Your task to perform on an android device: Search for seafood restaurants on Google Maps Image 0: 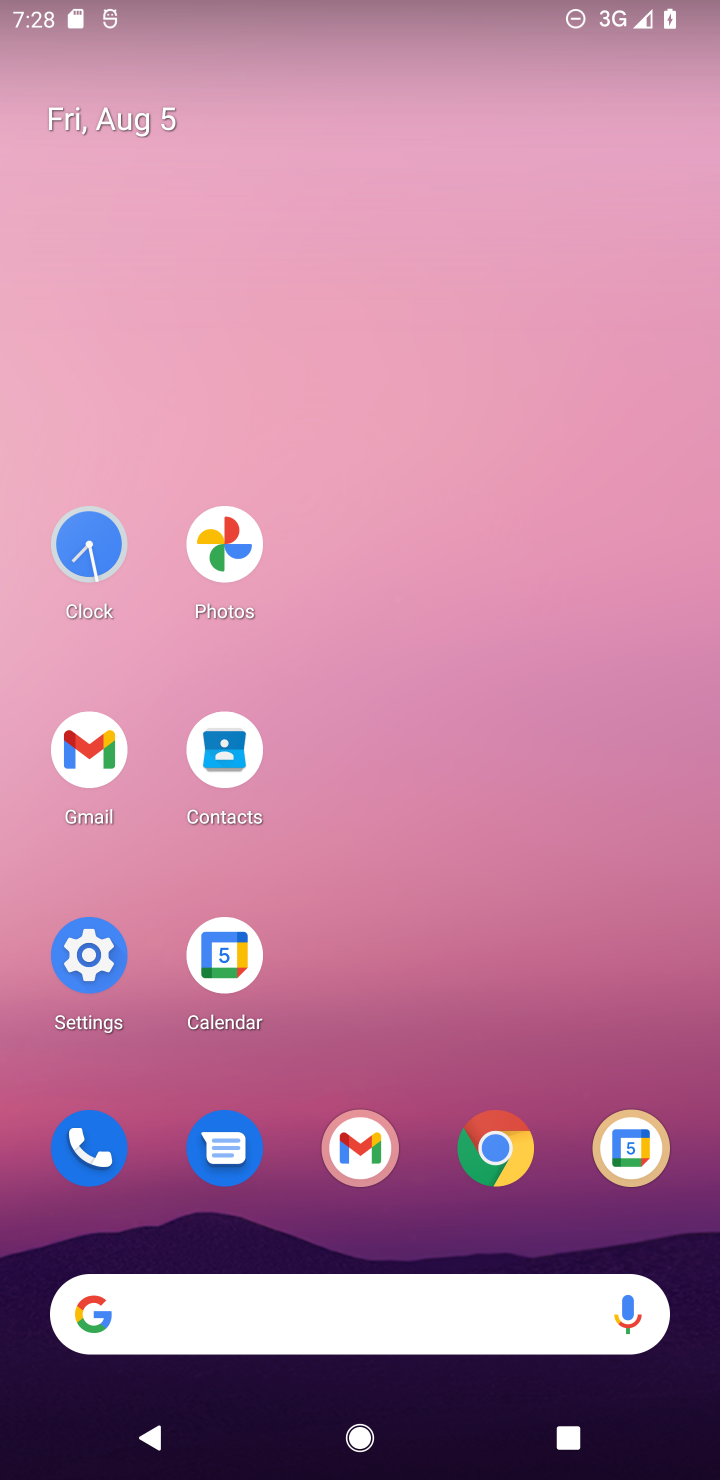
Step 0: drag from (449, 1196) to (375, 245)
Your task to perform on an android device: Search for seafood restaurants on Google Maps Image 1: 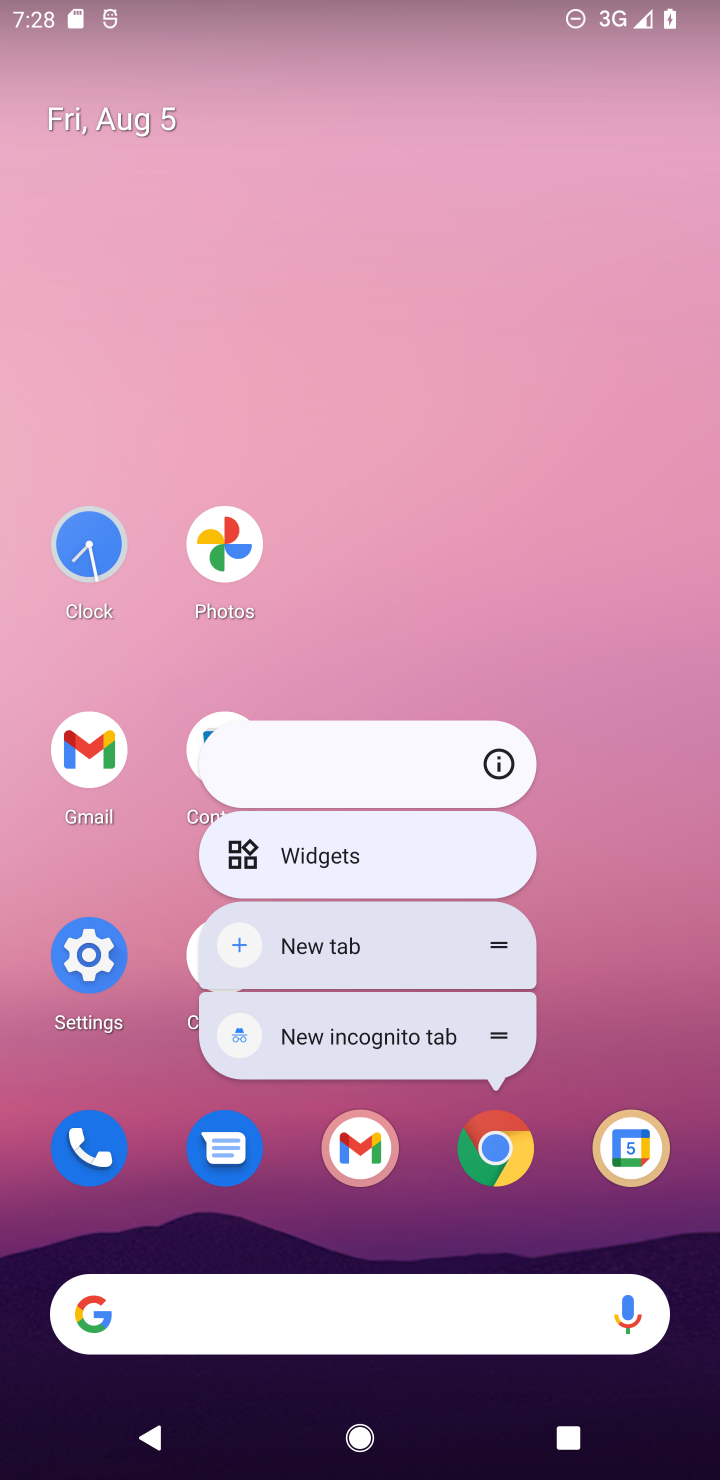
Step 1: drag from (415, 1241) to (379, 469)
Your task to perform on an android device: Search for seafood restaurants on Google Maps Image 2: 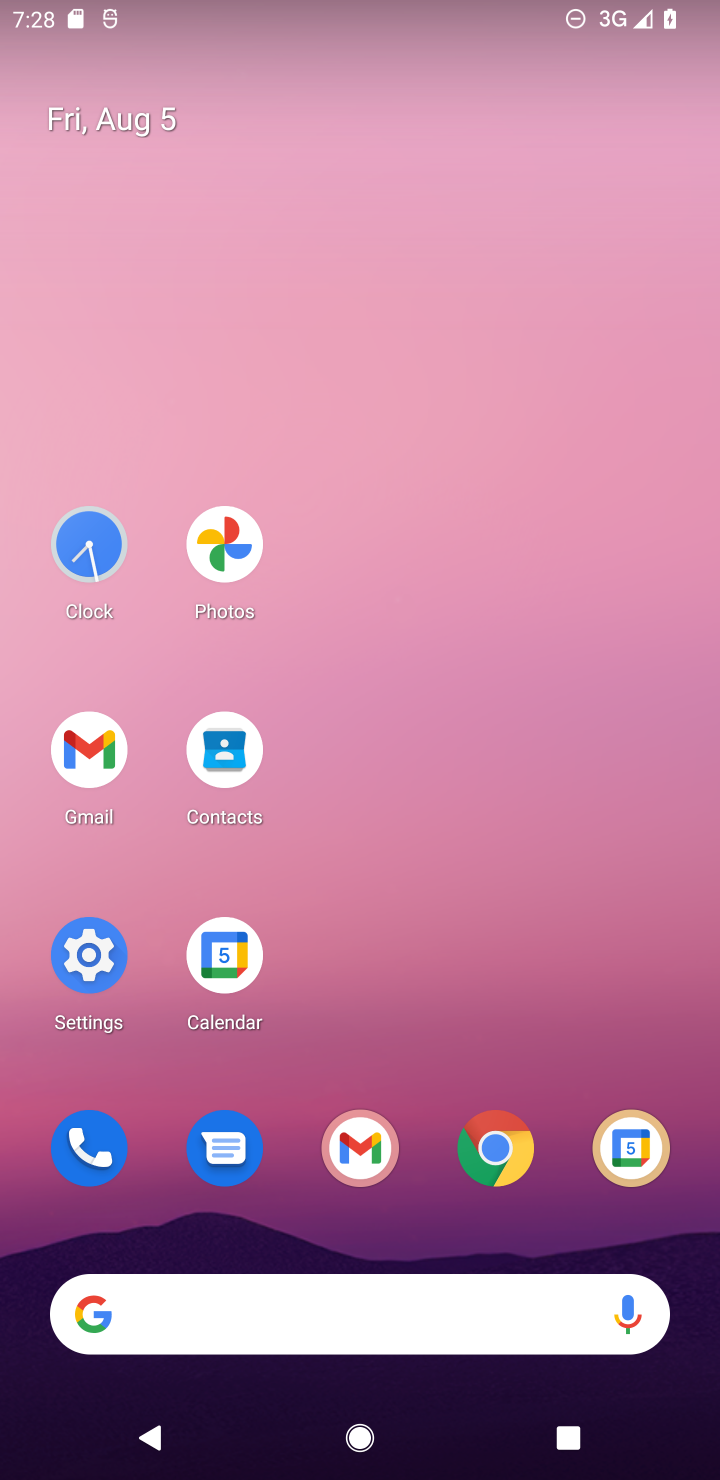
Step 2: drag from (412, 1249) to (499, 340)
Your task to perform on an android device: Search for seafood restaurants on Google Maps Image 3: 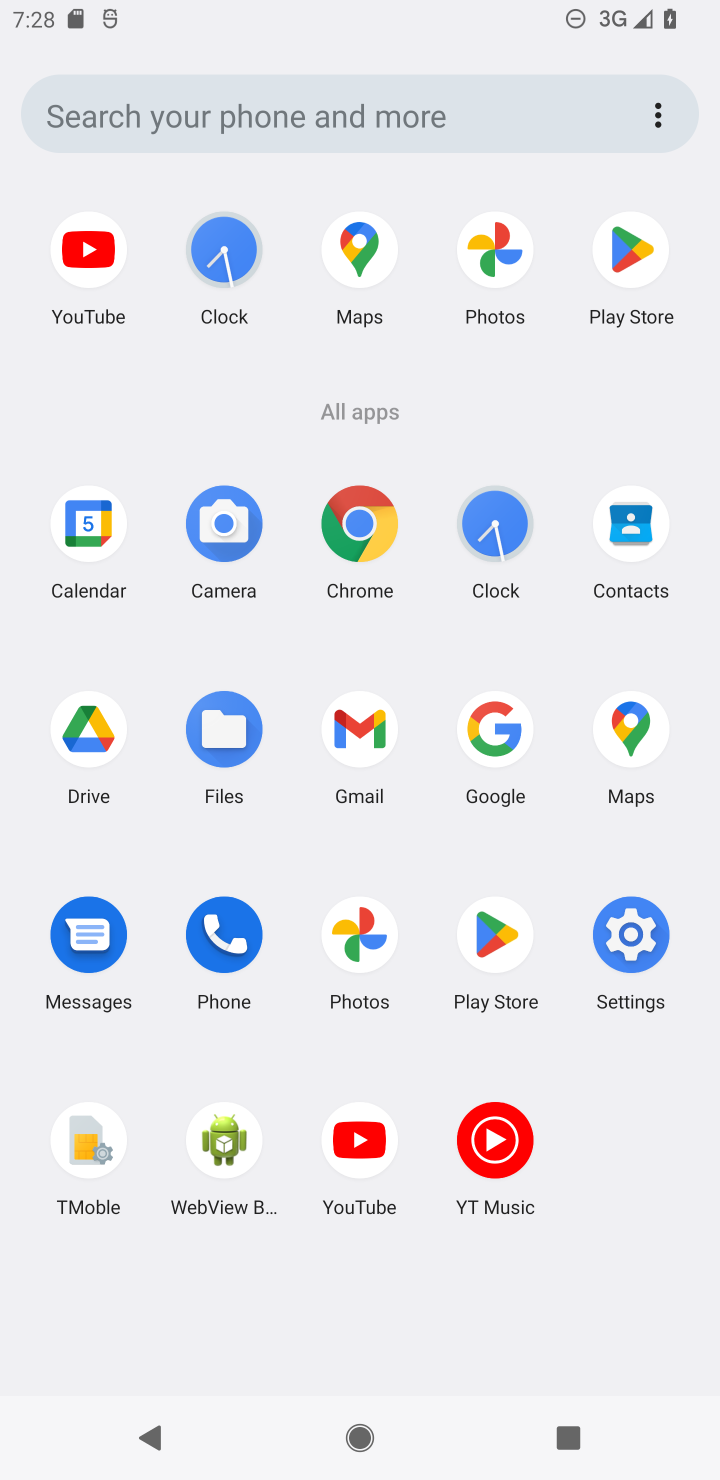
Step 3: click (629, 747)
Your task to perform on an android device: Search for seafood restaurants on Google Maps Image 4: 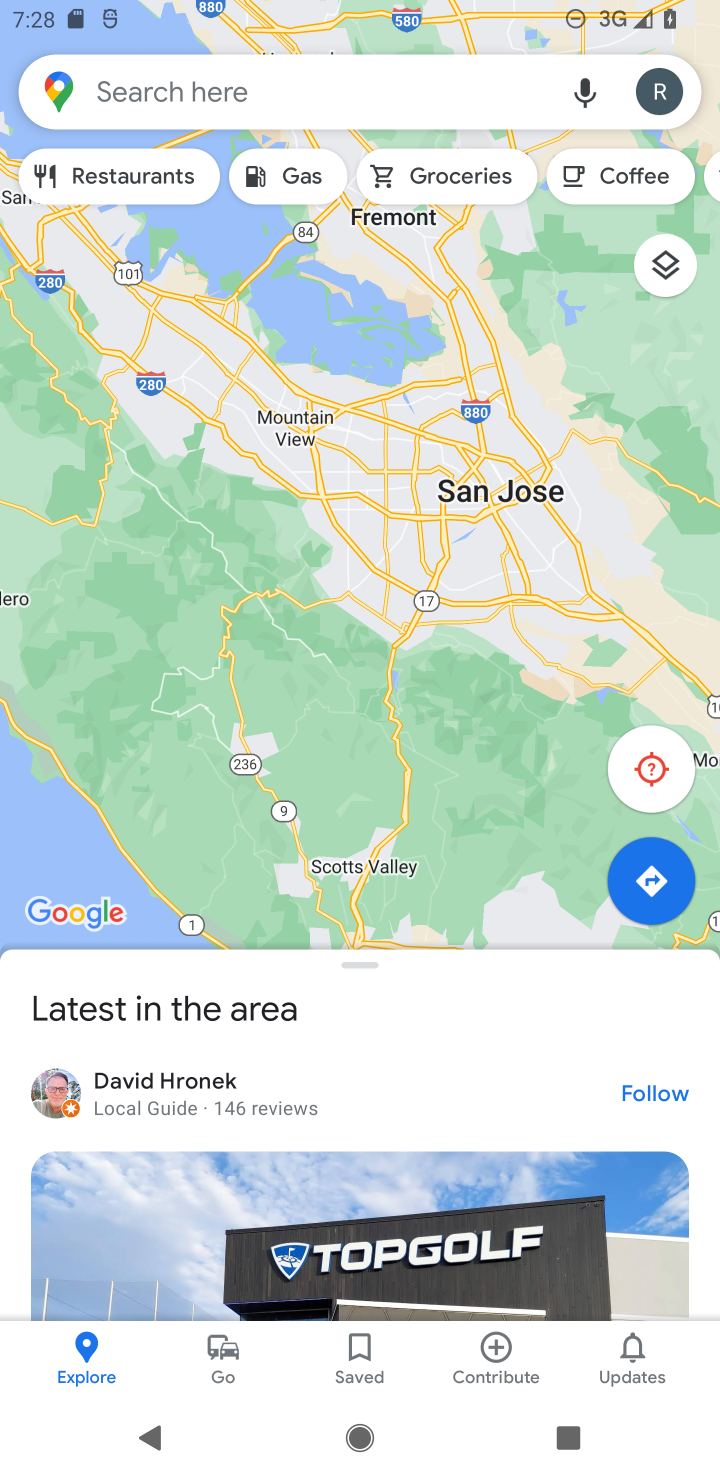
Step 4: click (213, 118)
Your task to perform on an android device: Search for seafood restaurants on Google Maps Image 5: 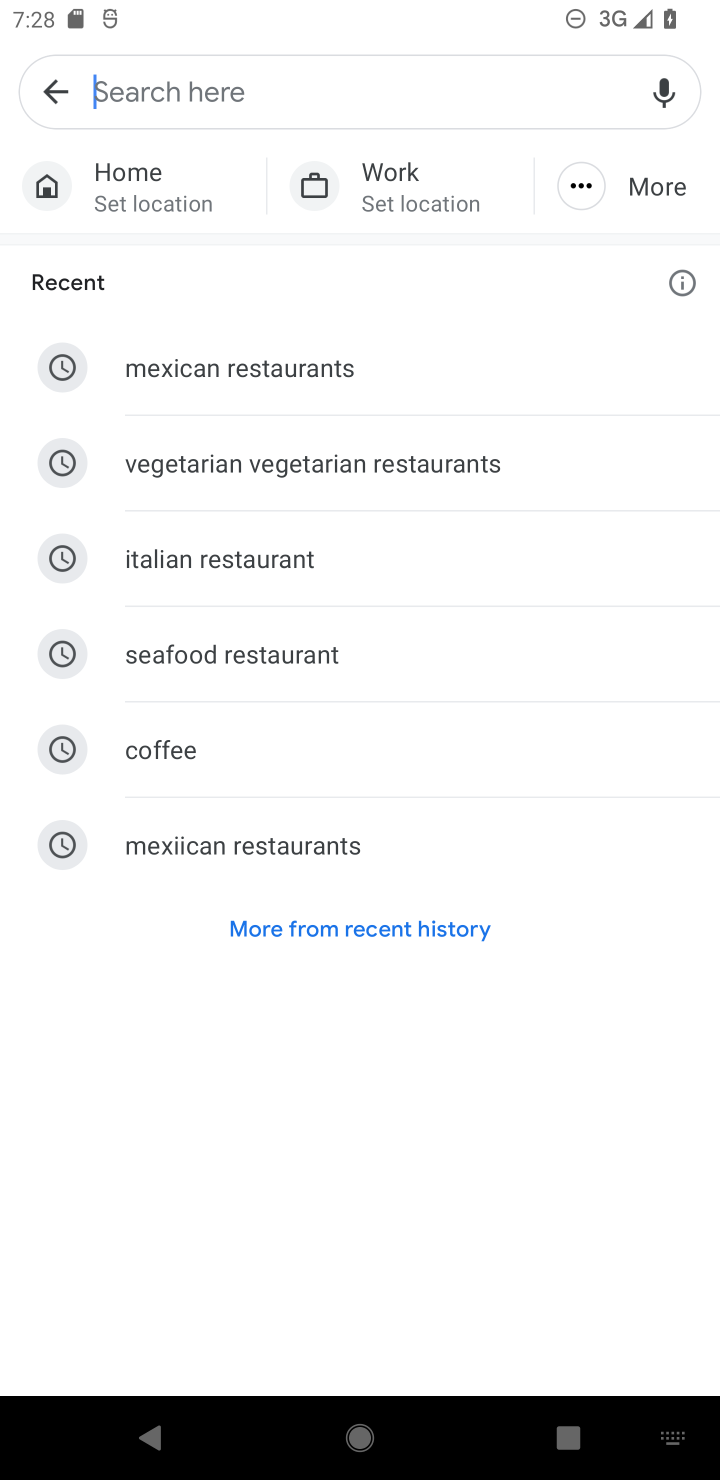
Step 5: click (207, 658)
Your task to perform on an android device: Search for seafood restaurants on Google Maps Image 6: 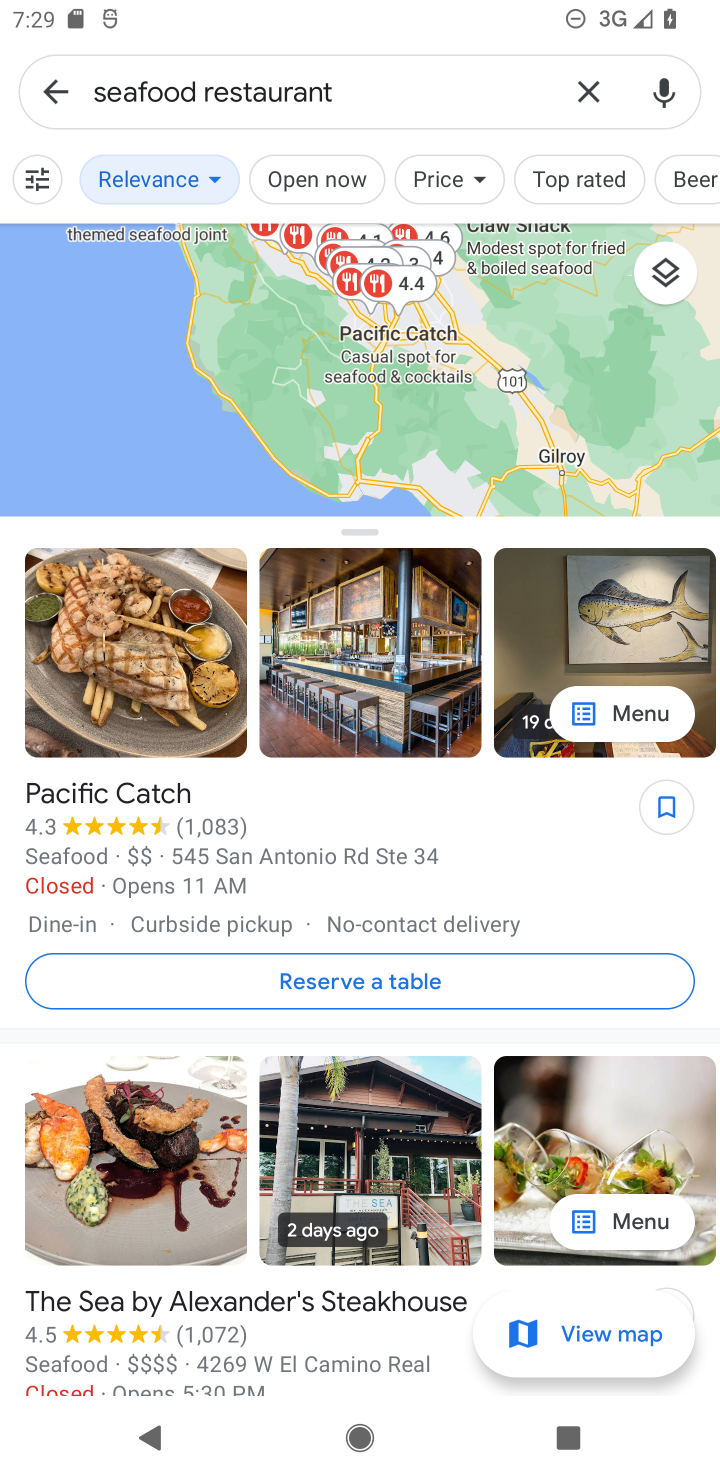
Step 6: task complete